Your task to perform on an android device: check android version Image 0: 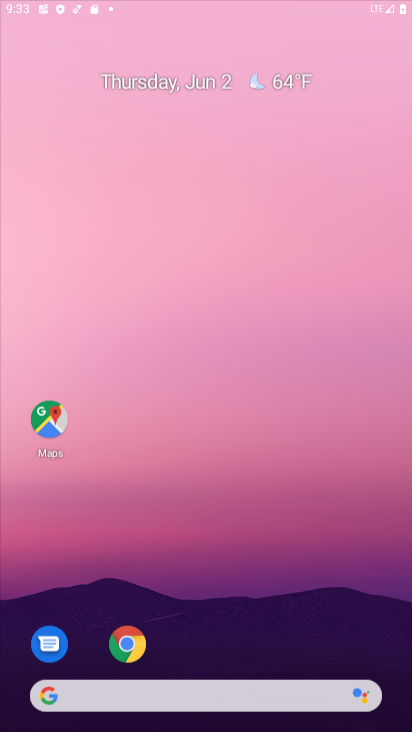
Step 0: press home button
Your task to perform on an android device: check android version Image 1: 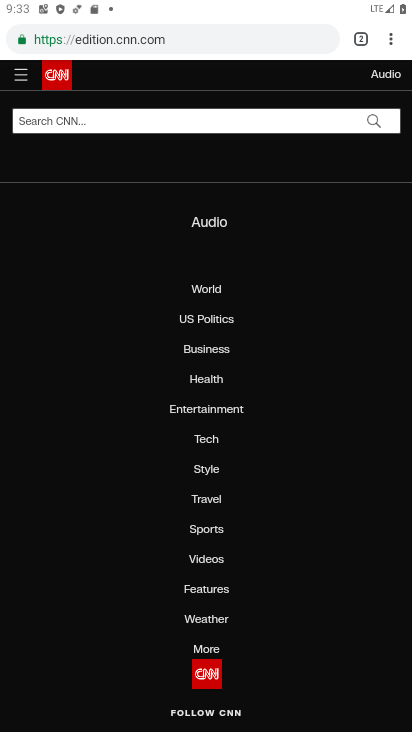
Step 1: drag from (342, 625) to (326, 220)
Your task to perform on an android device: check android version Image 2: 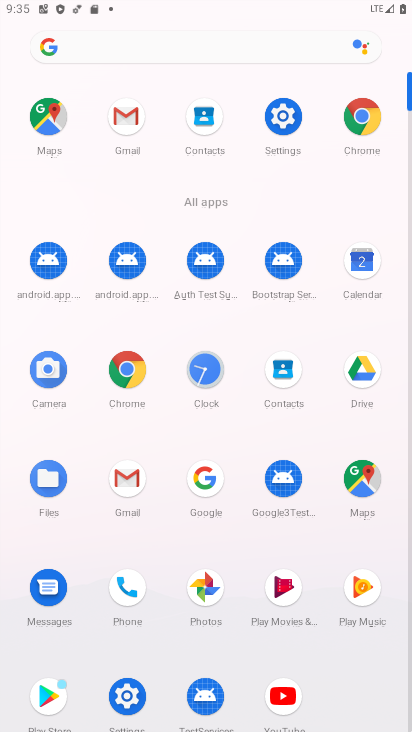
Step 2: click (135, 699)
Your task to perform on an android device: check android version Image 3: 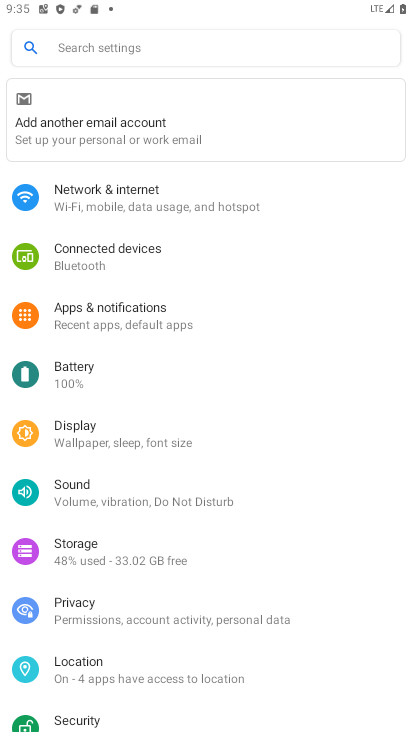
Step 3: drag from (130, 502) to (207, 137)
Your task to perform on an android device: check android version Image 4: 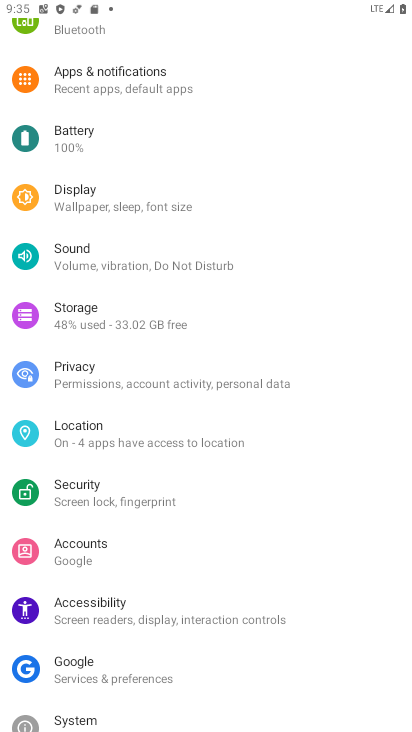
Step 4: drag from (106, 628) to (214, 387)
Your task to perform on an android device: check android version Image 5: 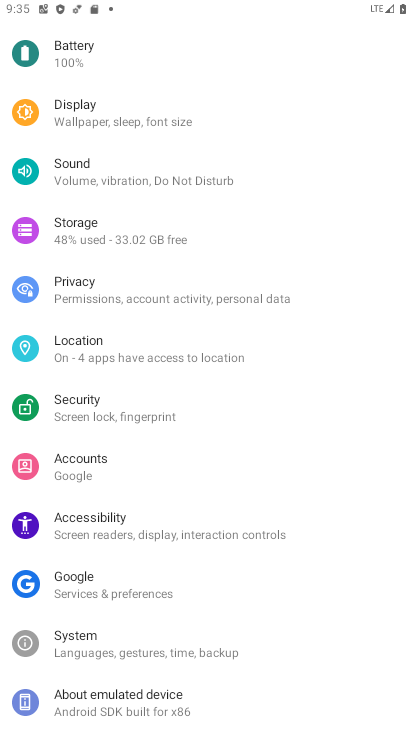
Step 5: click (106, 695)
Your task to perform on an android device: check android version Image 6: 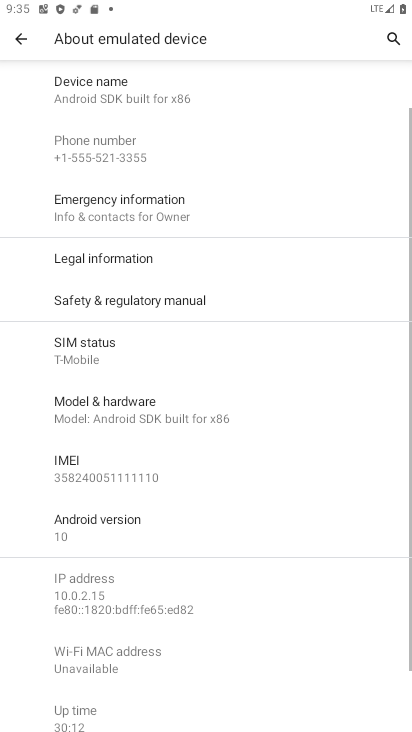
Step 6: click (143, 524)
Your task to perform on an android device: check android version Image 7: 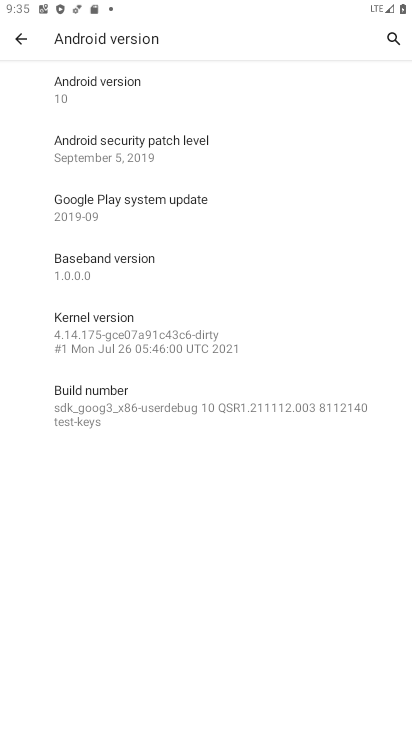
Step 7: task complete